Your task to perform on an android device: Go to eBay Image 0: 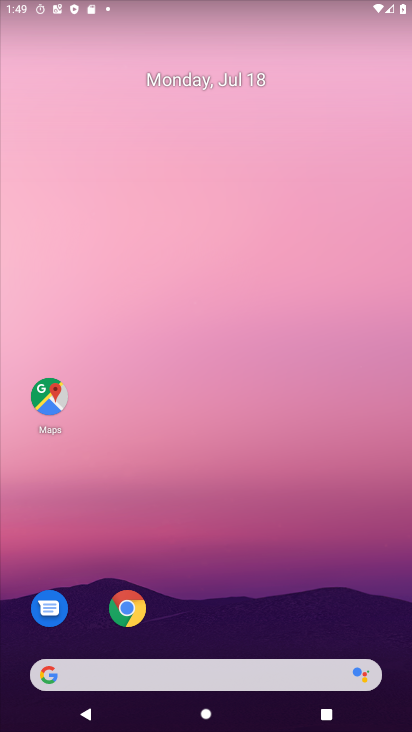
Step 0: click (129, 609)
Your task to perform on an android device: Go to eBay Image 1: 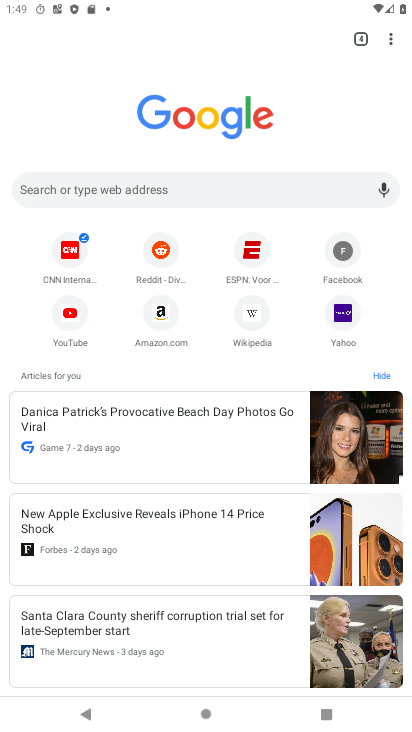
Step 1: click (232, 187)
Your task to perform on an android device: Go to eBay Image 2: 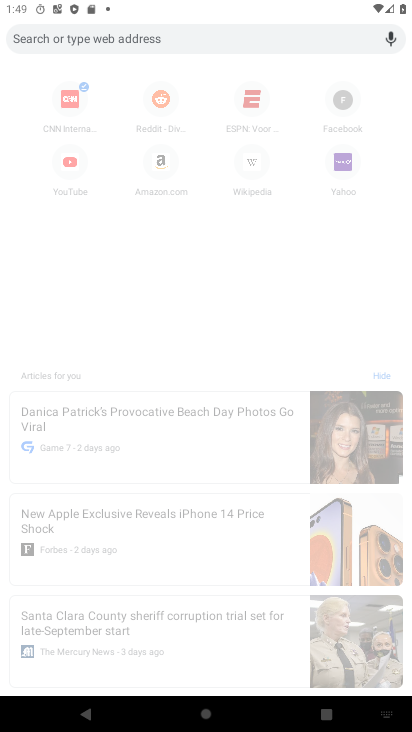
Step 2: type "eBay"
Your task to perform on an android device: Go to eBay Image 3: 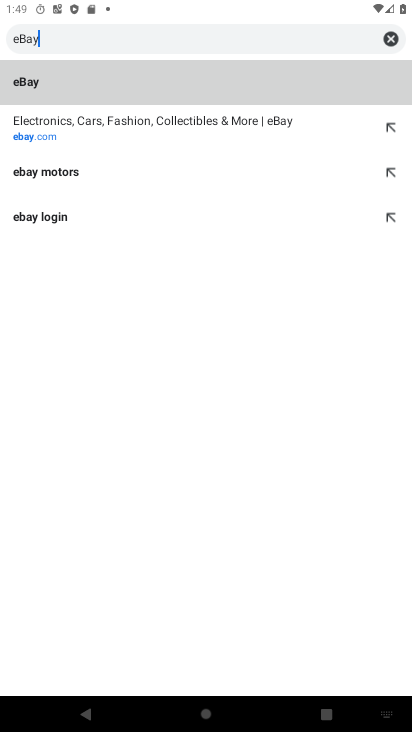
Step 3: click (29, 79)
Your task to perform on an android device: Go to eBay Image 4: 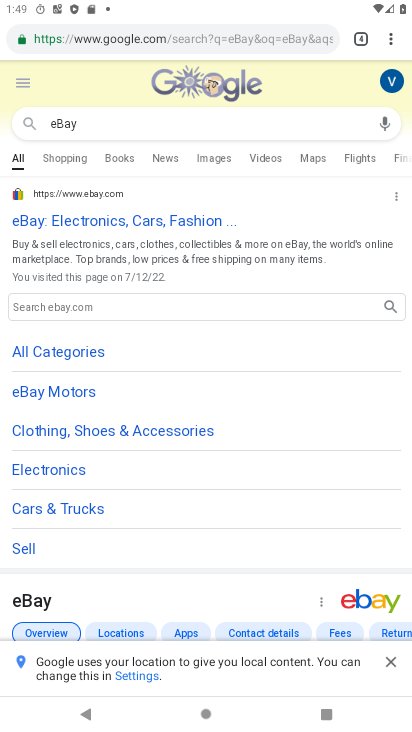
Step 4: click (105, 219)
Your task to perform on an android device: Go to eBay Image 5: 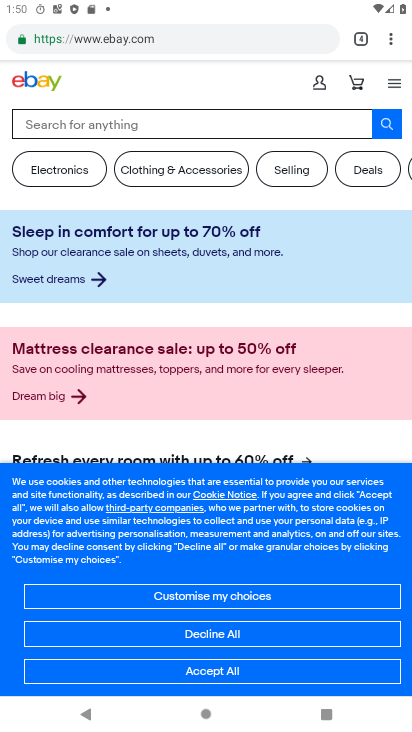
Step 5: task complete